Your task to perform on an android device: Toggle the flashlight Image 0: 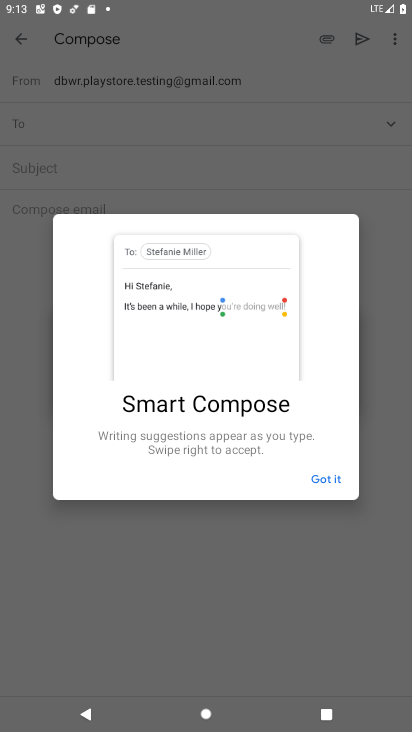
Step 0: press home button
Your task to perform on an android device: Toggle the flashlight Image 1: 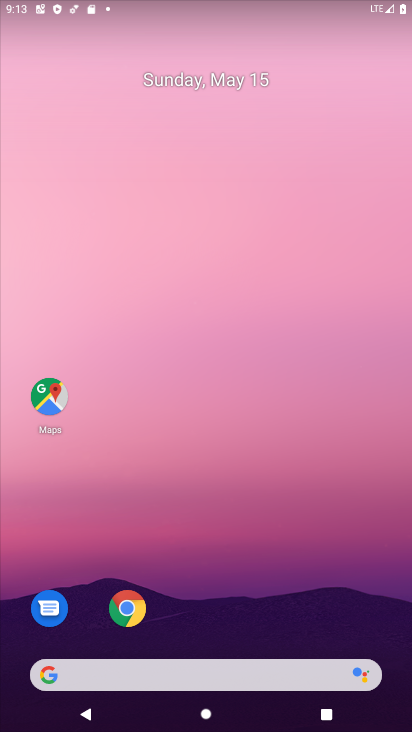
Step 1: drag from (257, 511) to (209, 124)
Your task to perform on an android device: Toggle the flashlight Image 2: 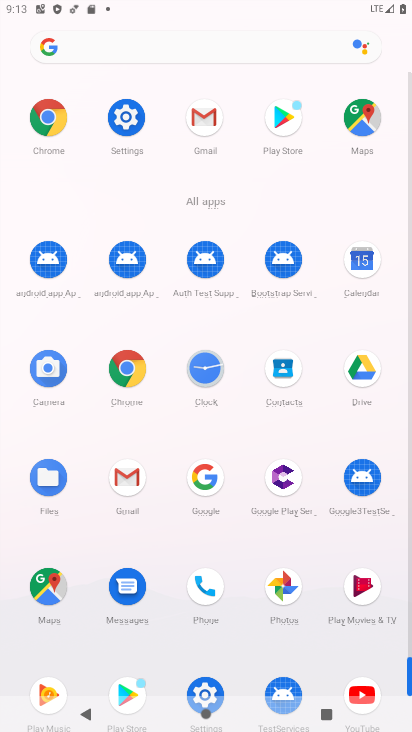
Step 2: click (120, 127)
Your task to perform on an android device: Toggle the flashlight Image 3: 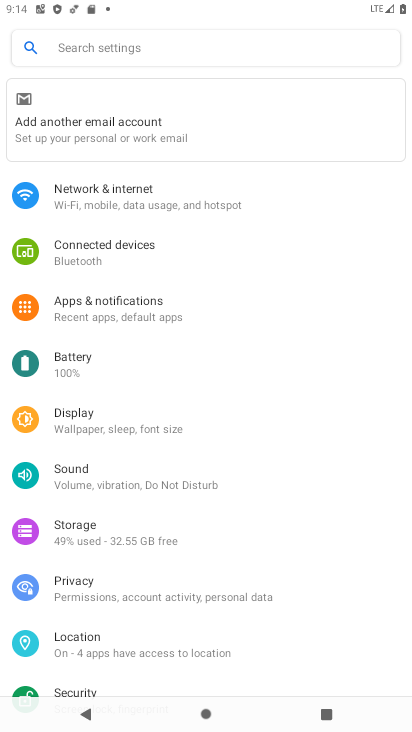
Step 3: task complete